Your task to perform on an android device: Open calendar and show me the fourth week of next month Image 0: 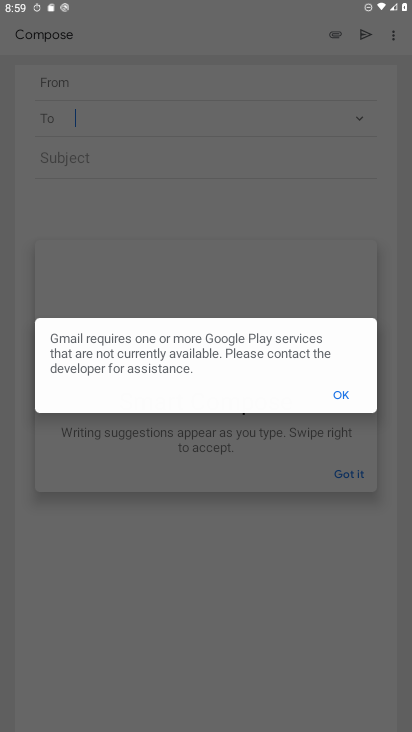
Step 0: drag from (375, 678) to (357, 426)
Your task to perform on an android device: Open calendar and show me the fourth week of next month Image 1: 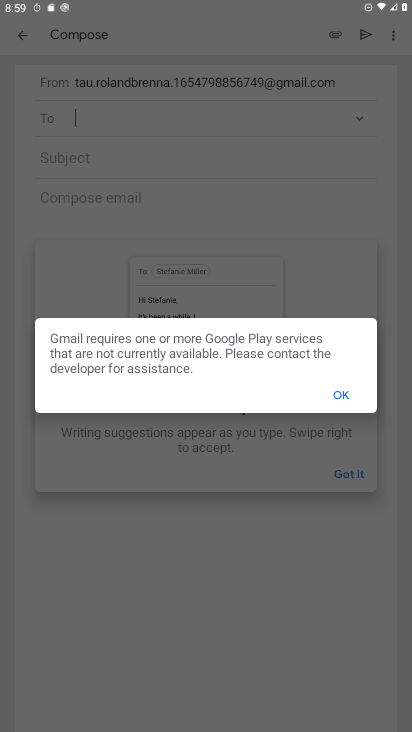
Step 1: press home button
Your task to perform on an android device: Open calendar and show me the fourth week of next month Image 2: 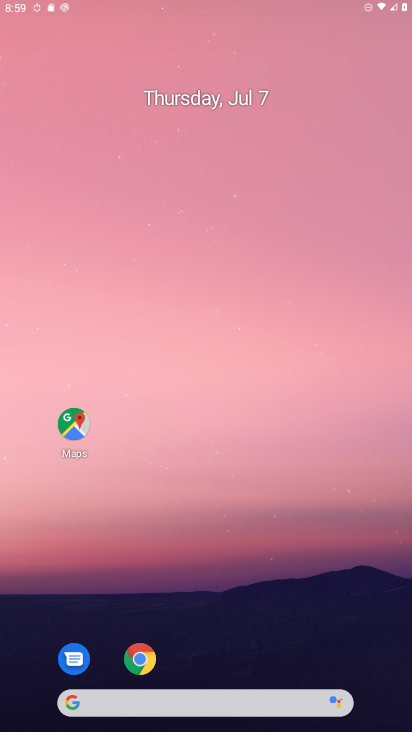
Step 2: drag from (385, 722) to (245, 61)
Your task to perform on an android device: Open calendar and show me the fourth week of next month Image 3: 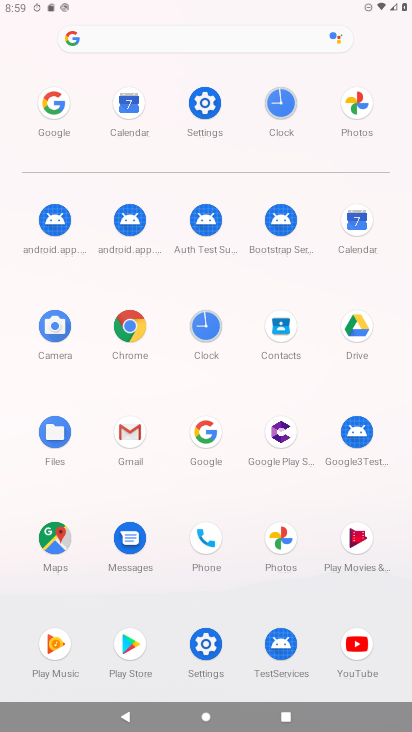
Step 3: click (359, 231)
Your task to perform on an android device: Open calendar and show me the fourth week of next month Image 4: 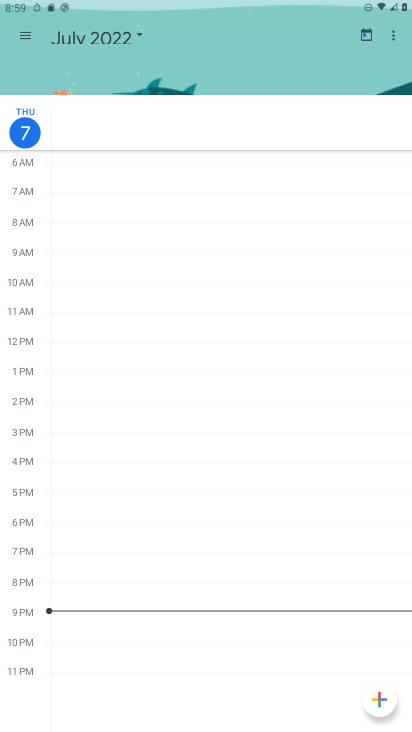
Step 4: click (83, 37)
Your task to perform on an android device: Open calendar and show me the fourth week of next month Image 5: 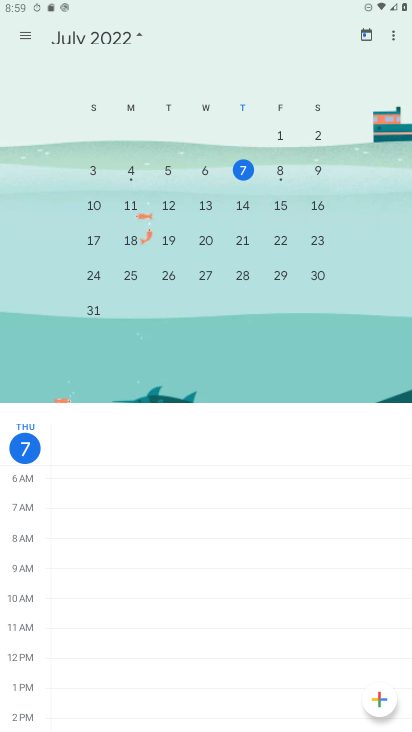
Step 5: drag from (321, 233) to (0, 237)
Your task to perform on an android device: Open calendar and show me the fourth week of next month Image 6: 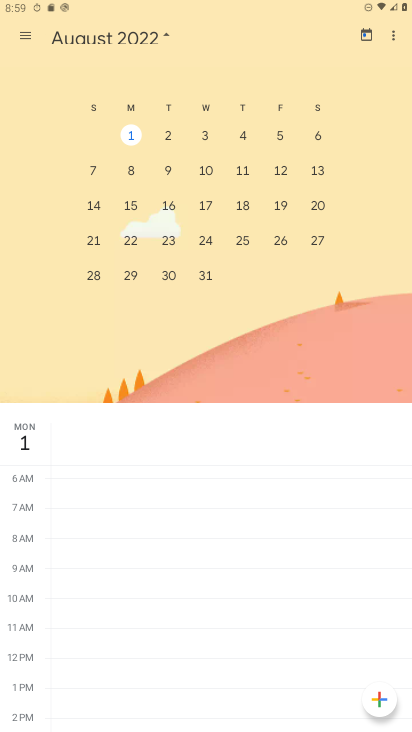
Step 6: click (169, 275)
Your task to perform on an android device: Open calendar and show me the fourth week of next month Image 7: 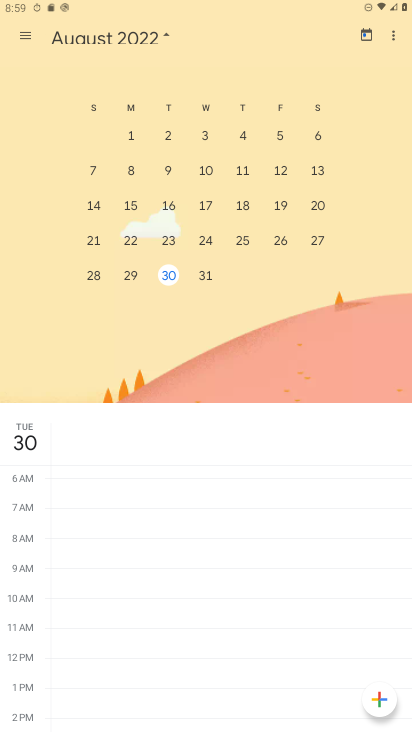
Step 7: task complete